Your task to perform on an android device: Do I have any events today? Image 0: 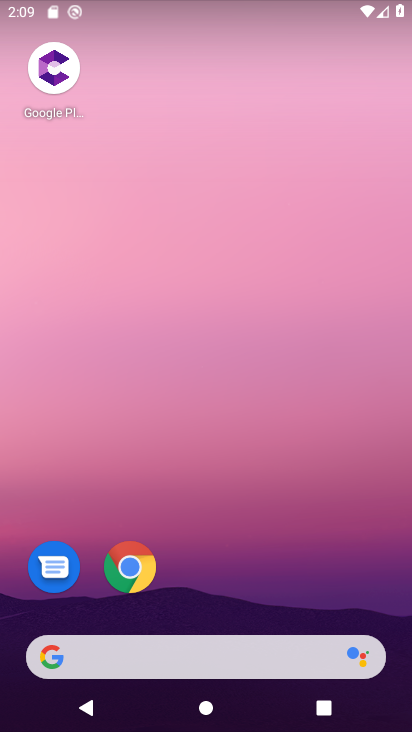
Step 0: drag from (236, 508) to (207, 47)
Your task to perform on an android device: Do I have any events today? Image 1: 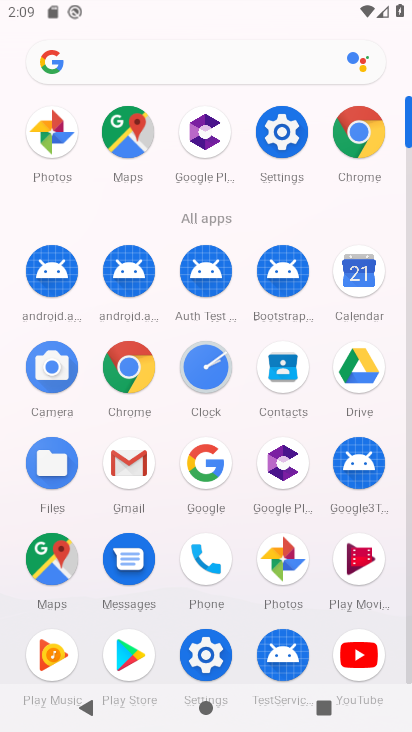
Step 1: drag from (16, 559) to (23, 332)
Your task to perform on an android device: Do I have any events today? Image 2: 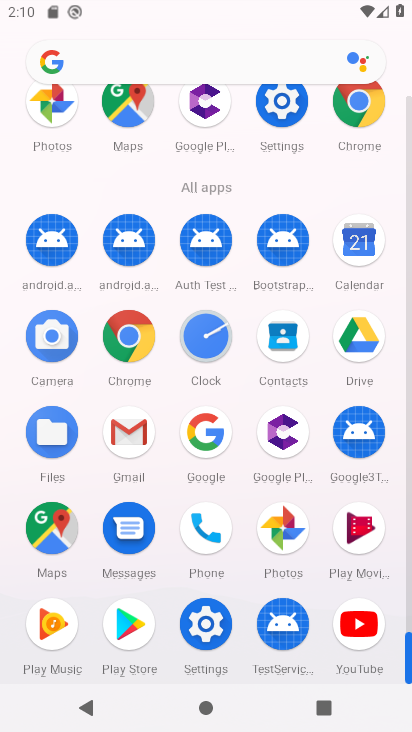
Step 2: click (359, 229)
Your task to perform on an android device: Do I have any events today? Image 3: 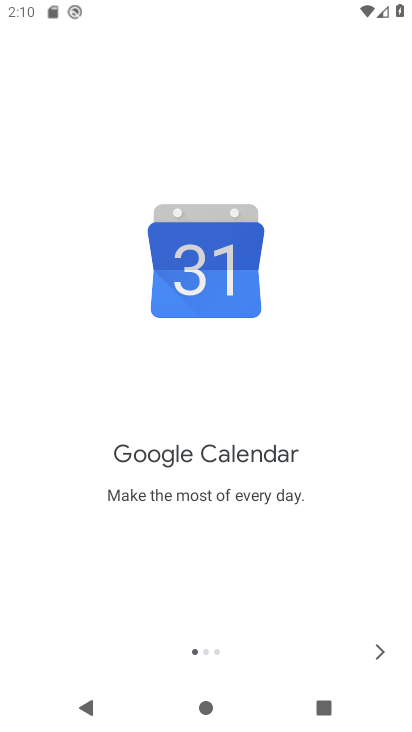
Step 3: click (367, 650)
Your task to perform on an android device: Do I have any events today? Image 4: 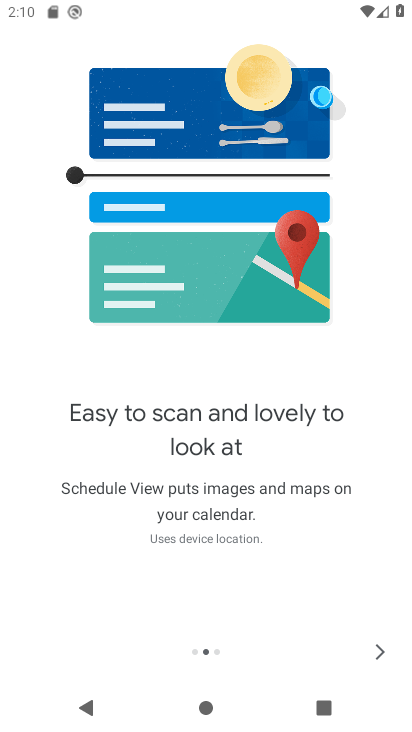
Step 4: click (367, 650)
Your task to perform on an android device: Do I have any events today? Image 5: 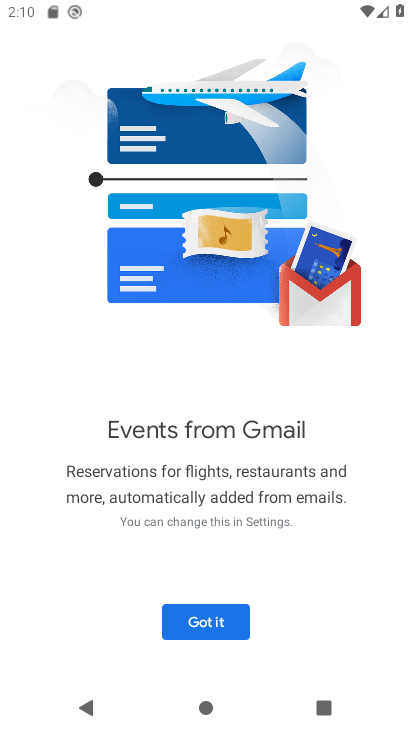
Step 5: click (219, 618)
Your task to perform on an android device: Do I have any events today? Image 6: 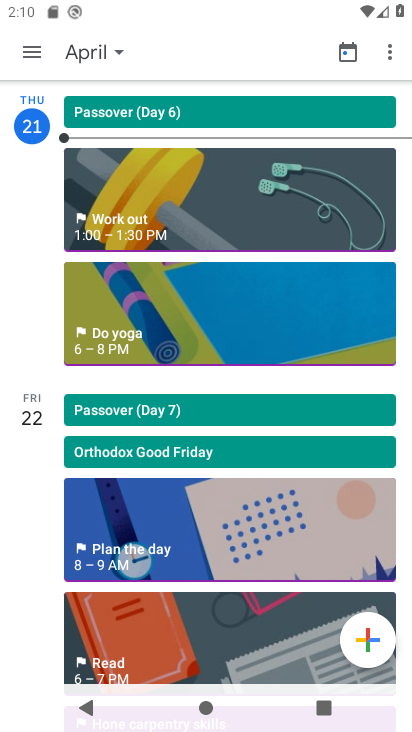
Step 6: click (37, 50)
Your task to perform on an android device: Do I have any events today? Image 7: 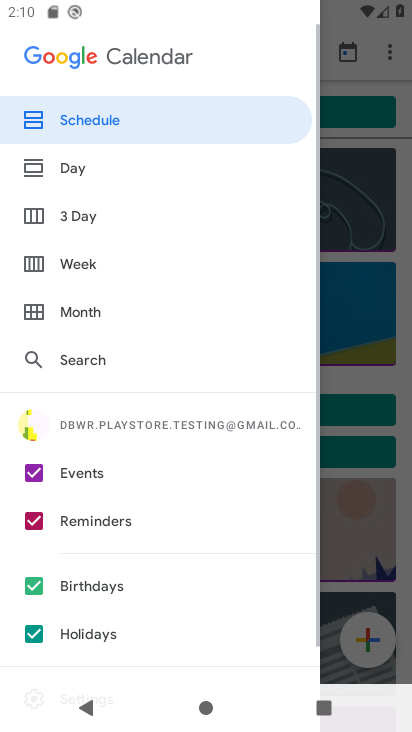
Step 7: click (44, 518)
Your task to perform on an android device: Do I have any events today? Image 8: 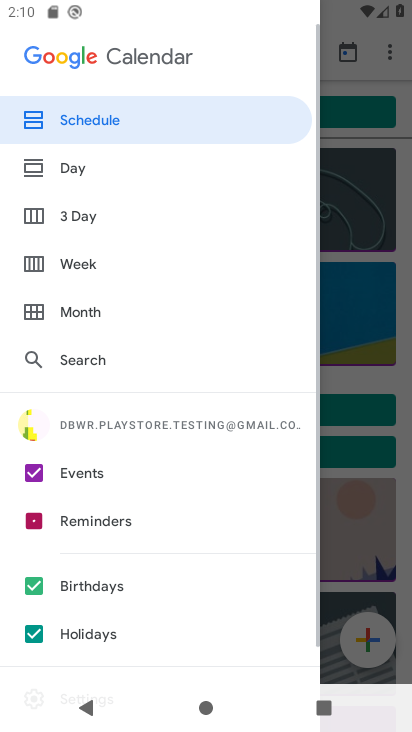
Step 8: click (36, 595)
Your task to perform on an android device: Do I have any events today? Image 9: 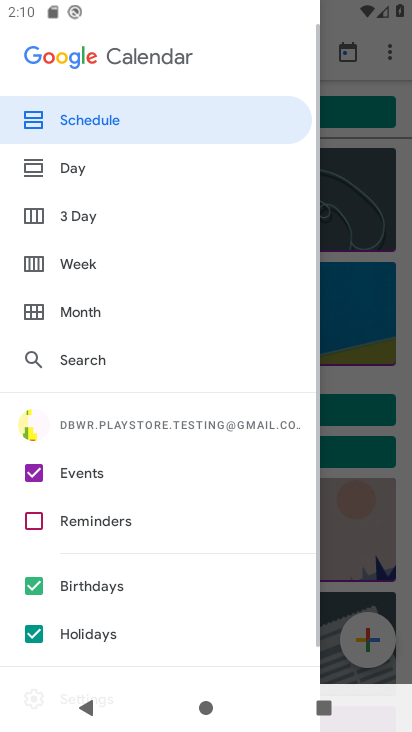
Step 9: click (40, 637)
Your task to perform on an android device: Do I have any events today? Image 10: 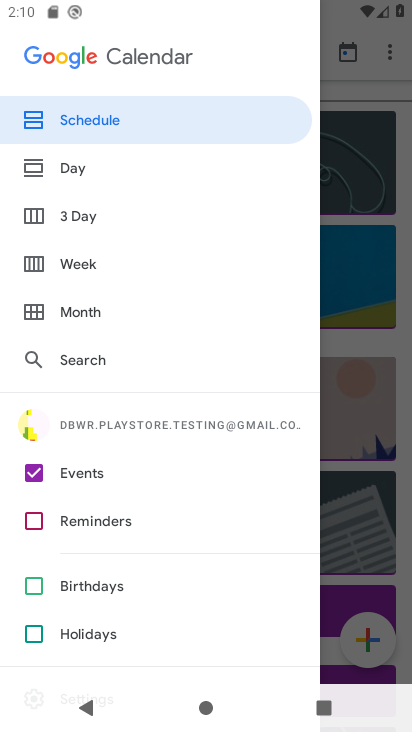
Step 10: click (227, 117)
Your task to perform on an android device: Do I have any events today? Image 11: 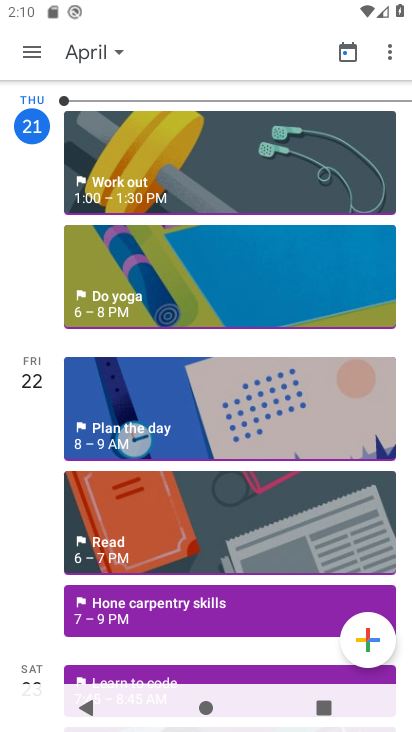
Step 11: task complete